Your task to perform on an android device: check out phone information Image 0: 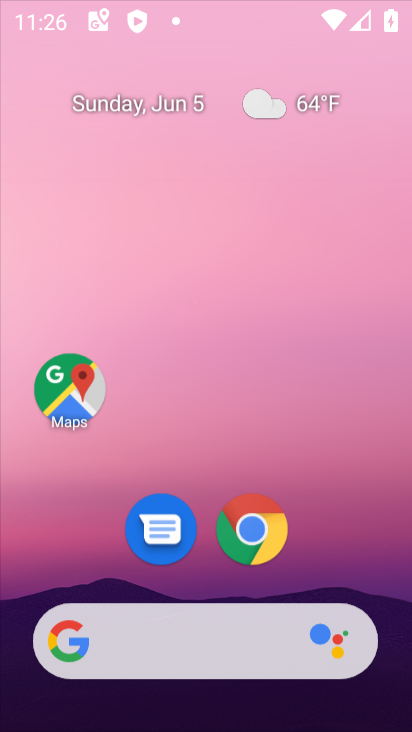
Step 0: drag from (410, 145) to (404, 23)
Your task to perform on an android device: check out phone information Image 1: 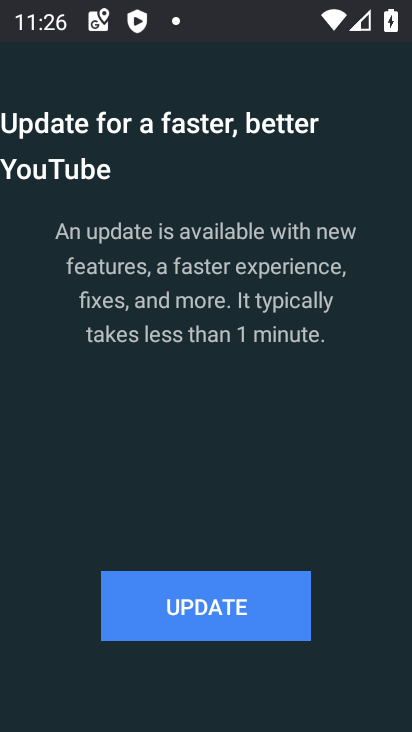
Step 1: press home button
Your task to perform on an android device: check out phone information Image 2: 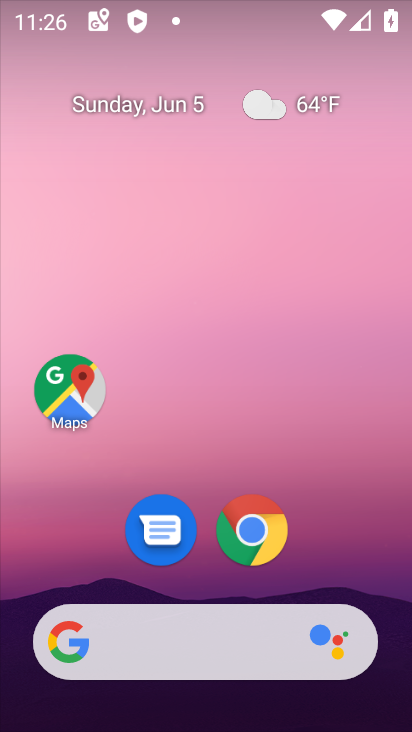
Step 2: drag from (348, 459) to (370, 10)
Your task to perform on an android device: check out phone information Image 3: 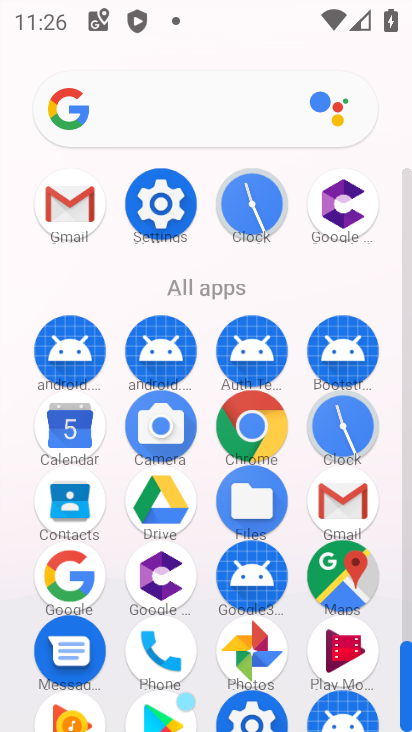
Step 3: click (173, 206)
Your task to perform on an android device: check out phone information Image 4: 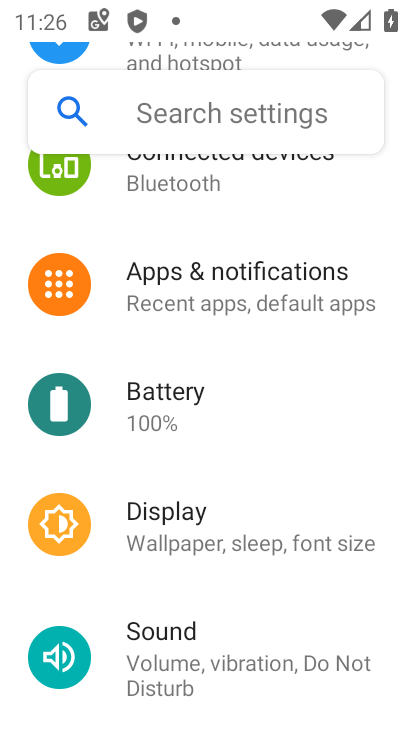
Step 4: task complete